Your task to perform on an android device: Open eBay Image 0: 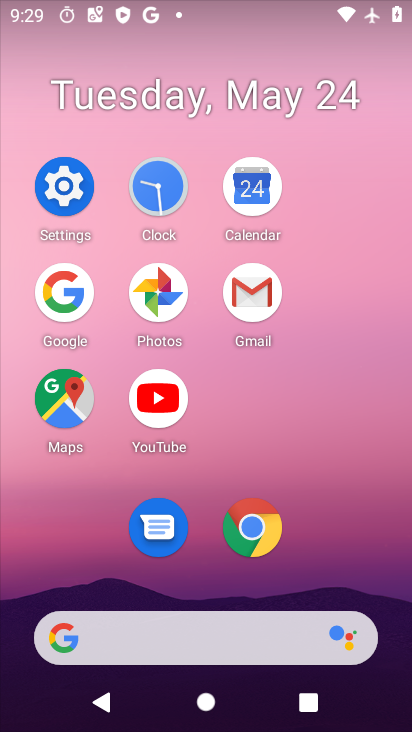
Step 0: click (242, 516)
Your task to perform on an android device: Open eBay Image 1: 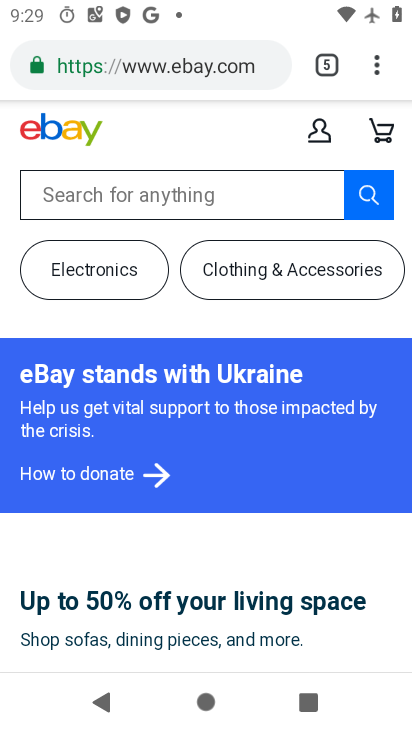
Step 1: task complete